Your task to perform on an android device: toggle location history Image 0: 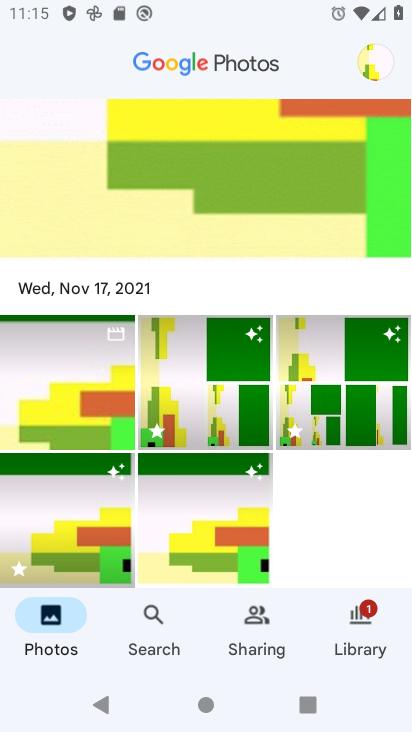
Step 0: press back button
Your task to perform on an android device: toggle location history Image 1: 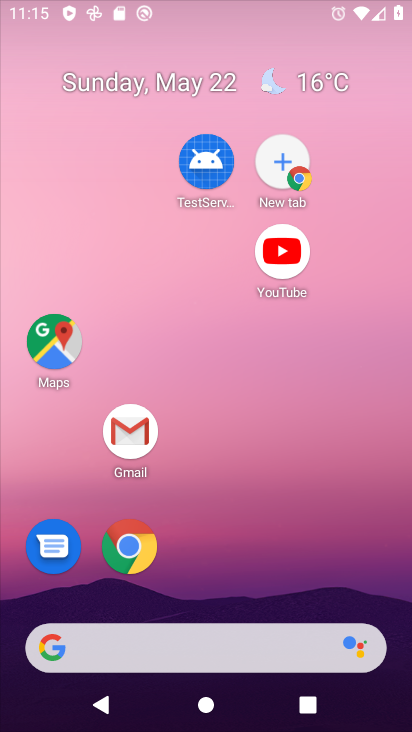
Step 1: press home button
Your task to perform on an android device: toggle location history Image 2: 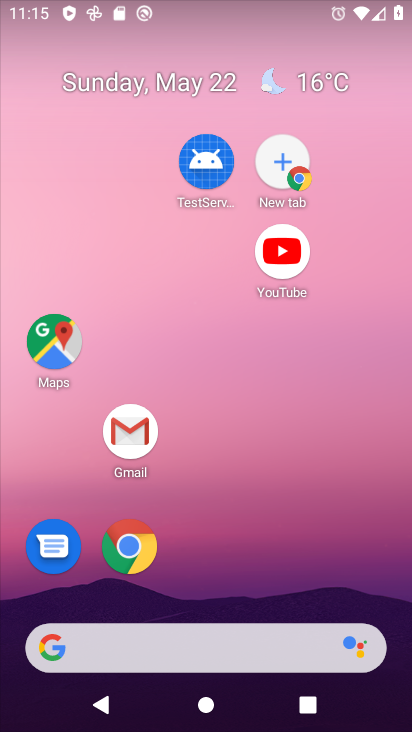
Step 2: drag from (181, 158) to (174, 107)
Your task to perform on an android device: toggle location history Image 3: 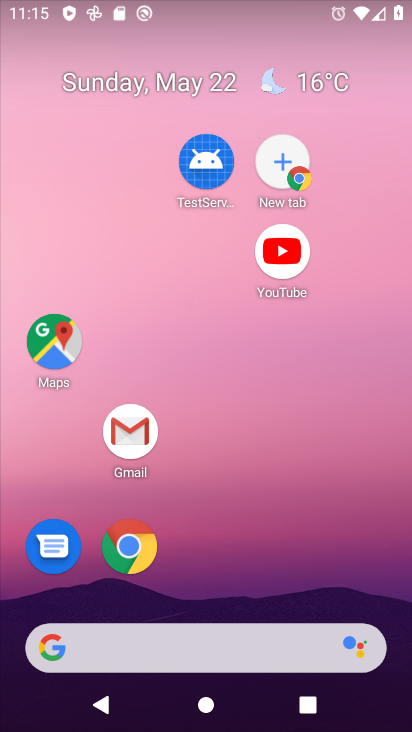
Step 3: drag from (259, 696) to (179, 148)
Your task to perform on an android device: toggle location history Image 4: 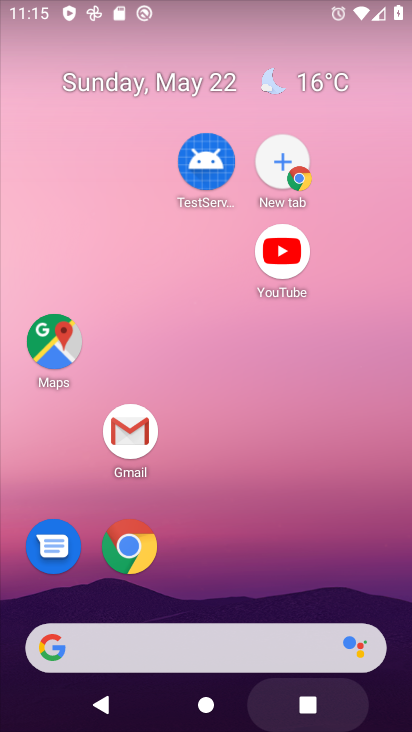
Step 4: drag from (207, 565) to (257, 145)
Your task to perform on an android device: toggle location history Image 5: 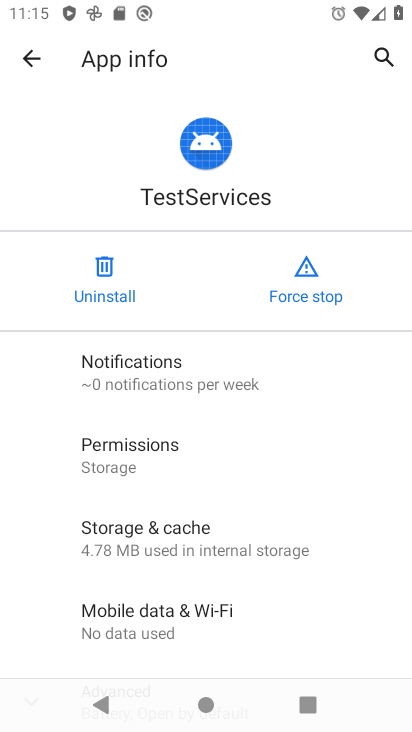
Step 5: click (31, 53)
Your task to perform on an android device: toggle location history Image 6: 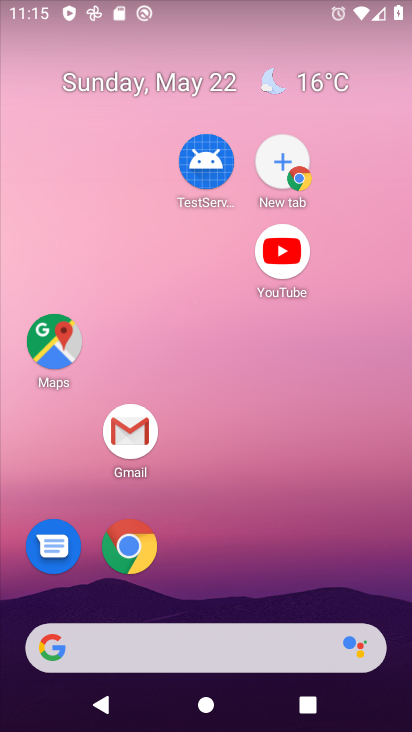
Step 6: drag from (251, 703) to (184, 157)
Your task to perform on an android device: toggle location history Image 7: 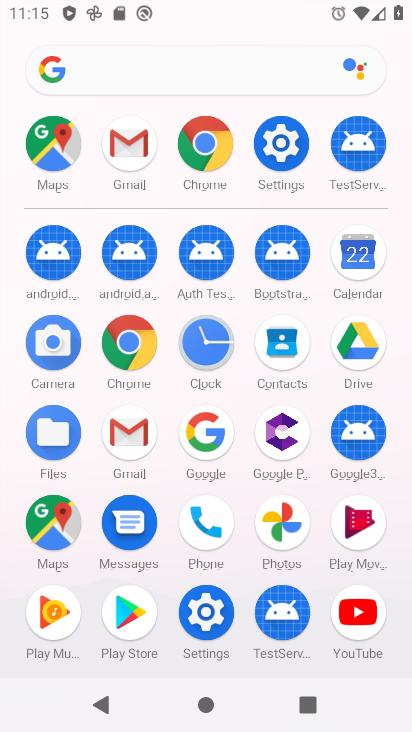
Step 7: click (274, 143)
Your task to perform on an android device: toggle location history Image 8: 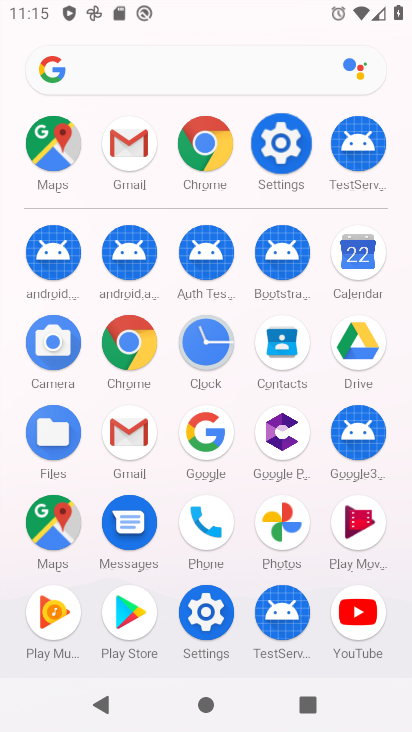
Step 8: click (274, 142)
Your task to perform on an android device: toggle location history Image 9: 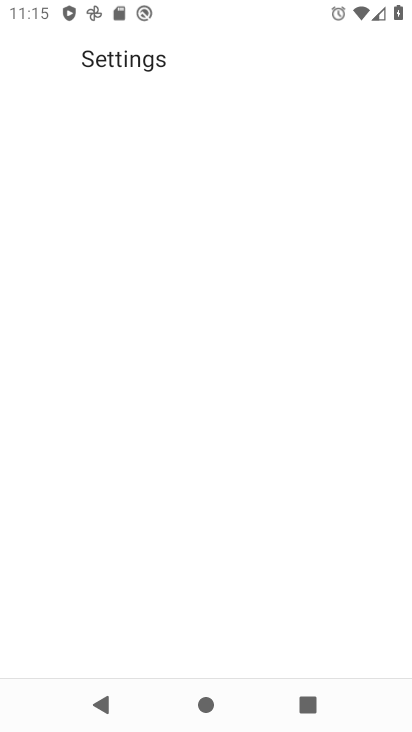
Step 9: click (274, 142)
Your task to perform on an android device: toggle location history Image 10: 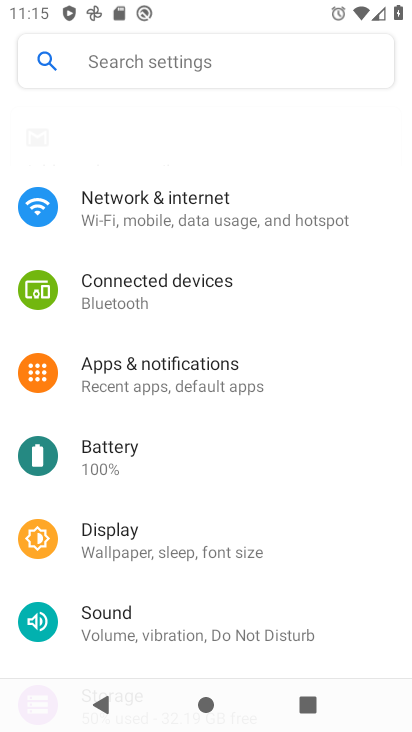
Step 10: click (275, 141)
Your task to perform on an android device: toggle location history Image 11: 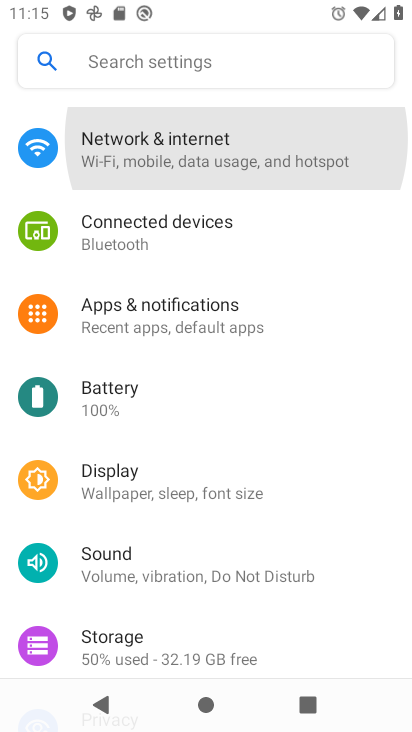
Step 11: click (275, 141)
Your task to perform on an android device: toggle location history Image 12: 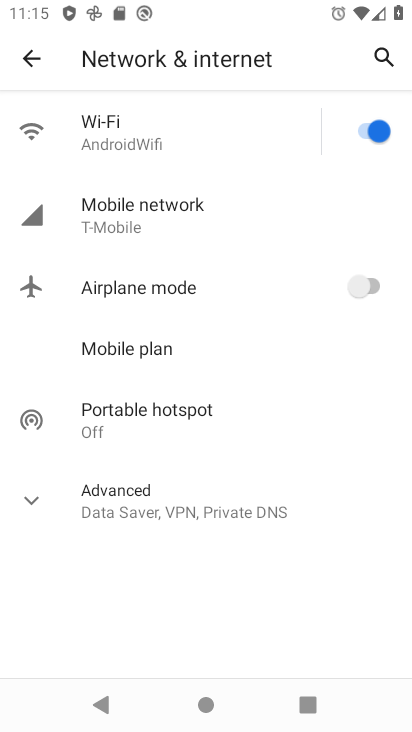
Step 12: click (22, 60)
Your task to perform on an android device: toggle location history Image 13: 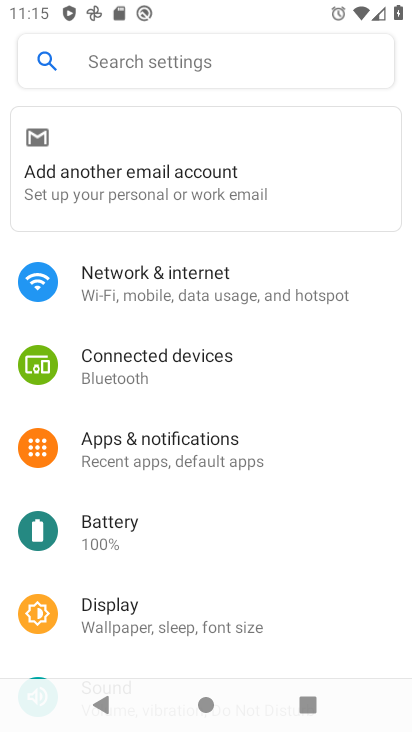
Step 13: drag from (145, 530) to (115, 208)
Your task to perform on an android device: toggle location history Image 14: 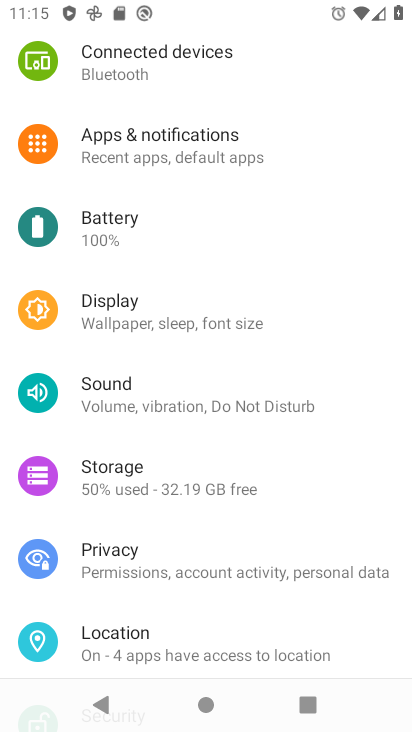
Step 14: drag from (115, 387) to (114, 161)
Your task to perform on an android device: toggle location history Image 15: 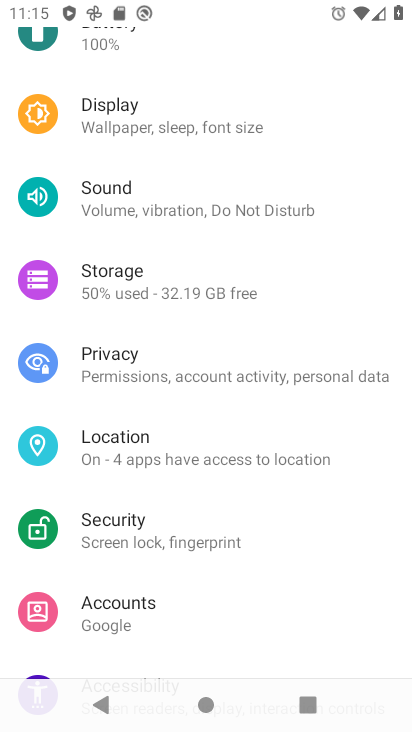
Step 15: drag from (120, 219) to (186, 481)
Your task to perform on an android device: toggle location history Image 16: 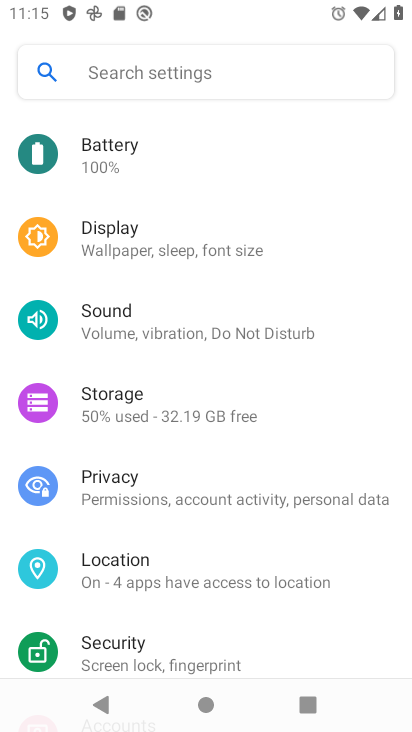
Step 16: drag from (184, 307) to (162, 636)
Your task to perform on an android device: toggle location history Image 17: 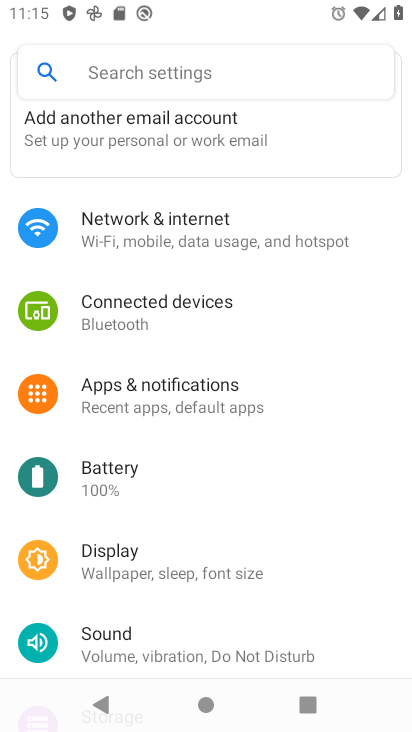
Step 17: drag from (154, 278) to (171, 445)
Your task to perform on an android device: toggle location history Image 18: 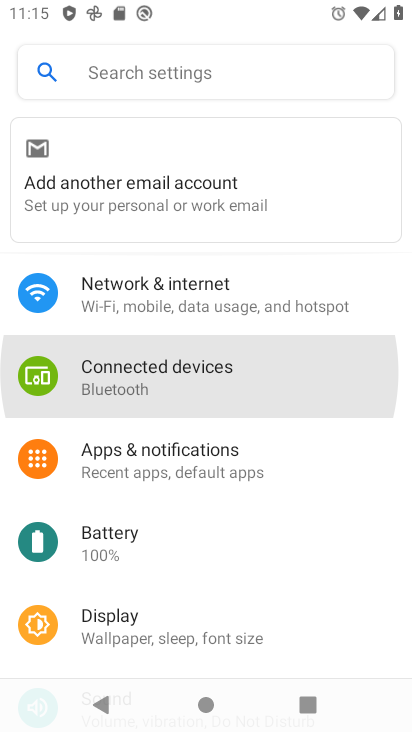
Step 18: drag from (144, 322) to (180, 569)
Your task to perform on an android device: toggle location history Image 19: 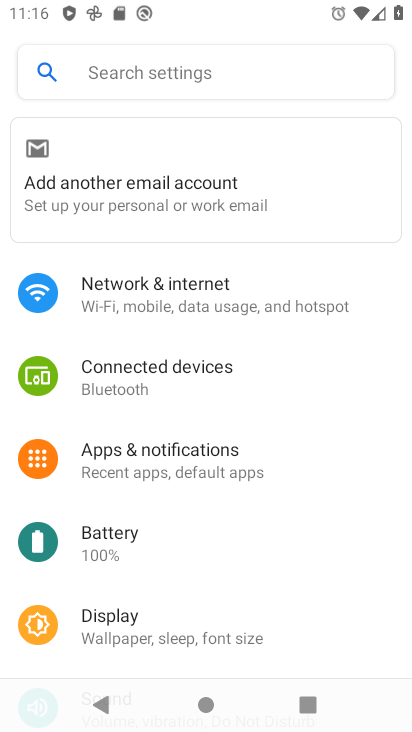
Step 19: drag from (188, 519) to (165, 281)
Your task to perform on an android device: toggle location history Image 20: 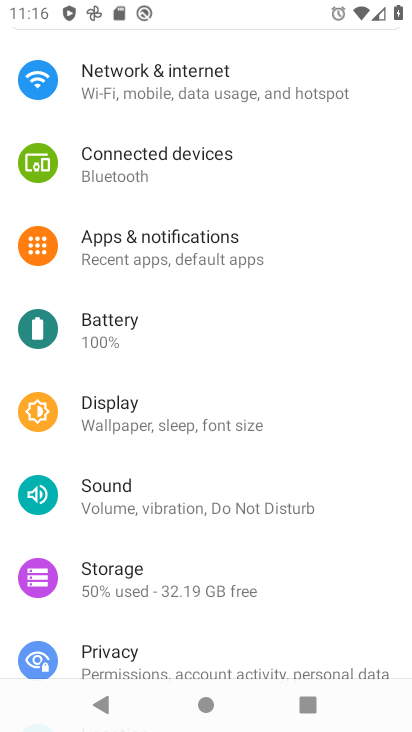
Step 20: drag from (124, 489) to (93, 190)
Your task to perform on an android device: toggle location history Image 21: 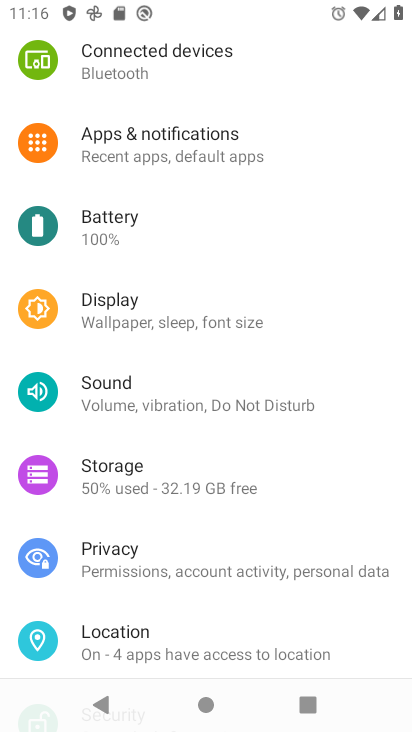
Step 21: drag from (187, 537) to (186, 226)
Your task to perform on an android device: toggle location history Image 22: 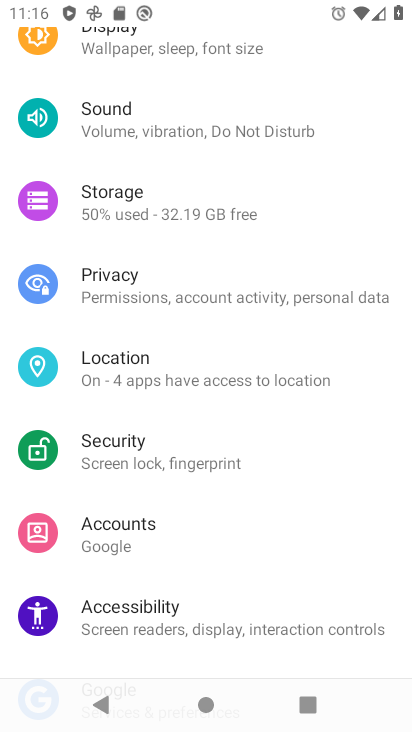
Step 22: click (117, 354)
Your task to perform on an android device: toggle location history Image 23: 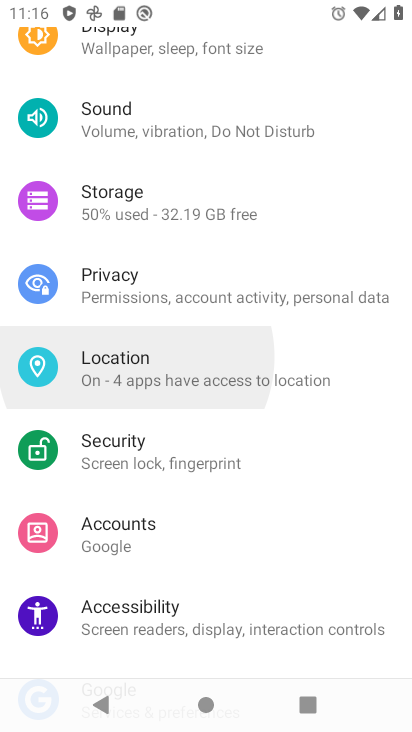
Step 23: click (118, 355)
Your task to perform on an android device: toggle location history Image 24: 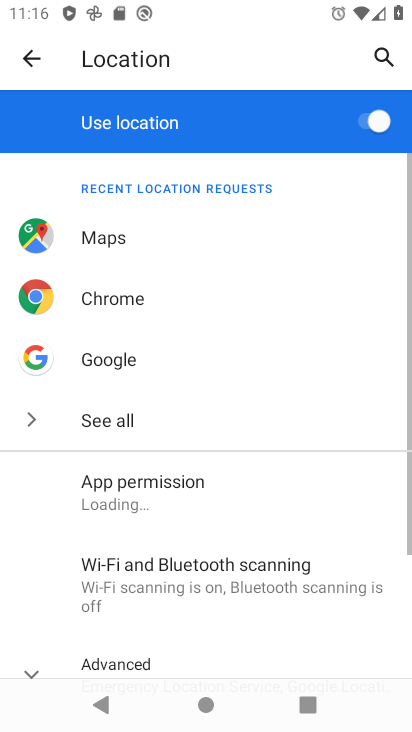
Step 24: drag from (127, 532) to (151, 166)
Your task to perform on an android device: toggle location history Image 25: 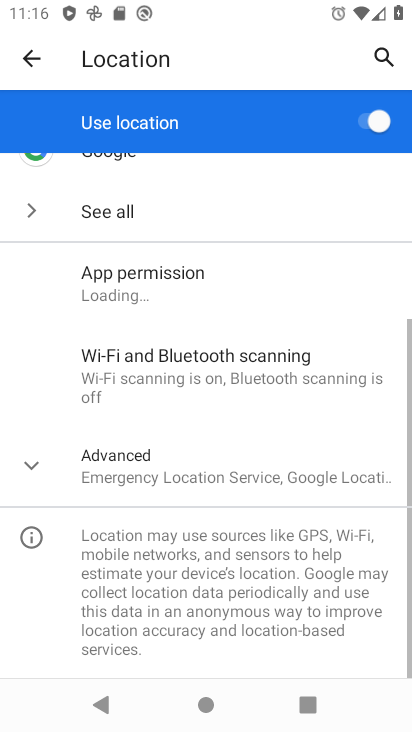
Step 25: drag from (205, 530) to (210, 231)
Your task to perform on an android device: toggle location history Image 26: 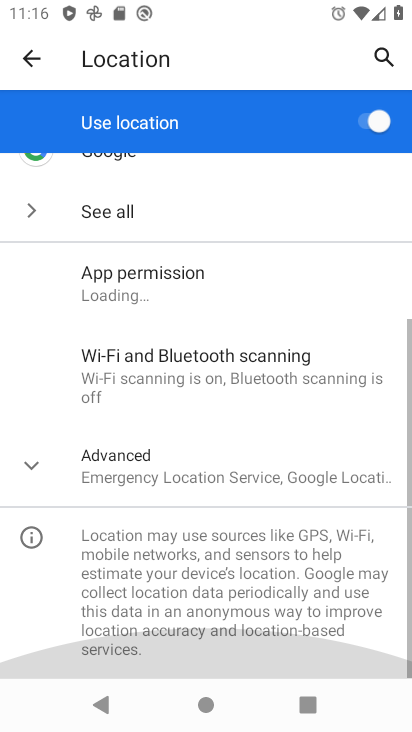
Step 26: drag from (180, 606) to (177, 310)
Your task to perform on an android device: toggle location history Image 27: 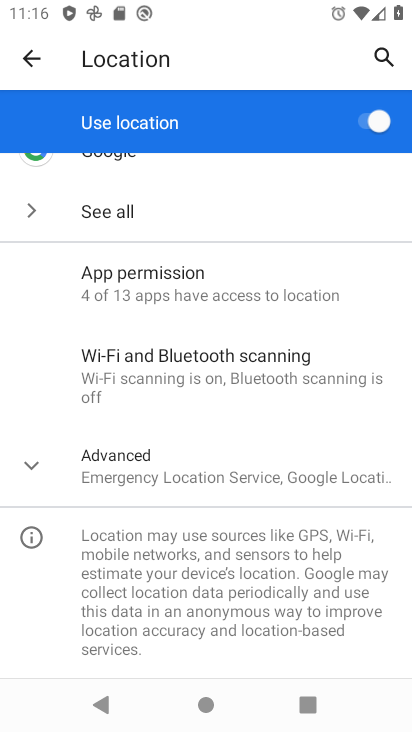
Step 27: click (173, 468)
Your task to perform on an android device: toggle location history Image 28: 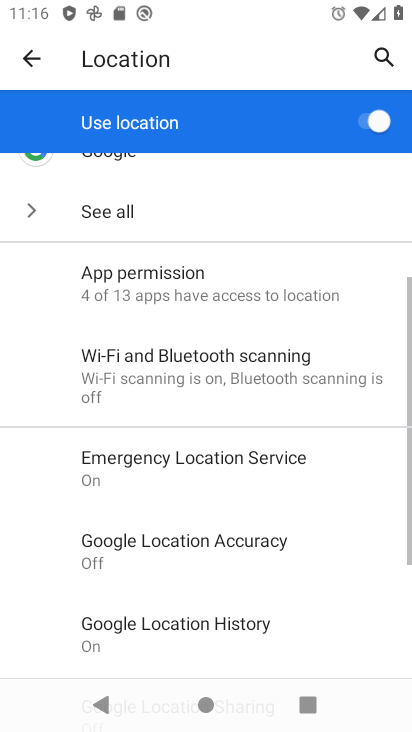
Step 28: click (152, 337)
Your task to perform on an android device: toggle location history Image 29: 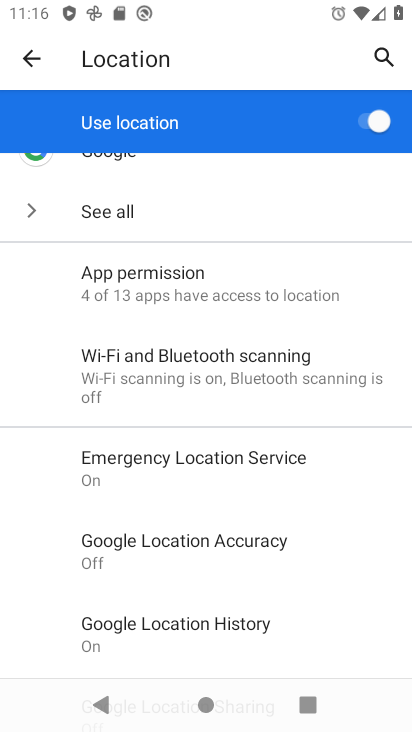
Step 29: drag from (190, 459) to (181, 218)
Your task to perform on an android device: toggle location history Image 30: 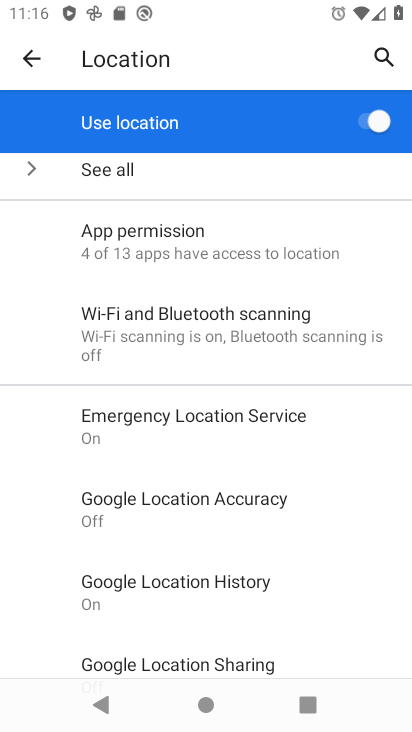
Step 30: click (163, 581)
Your task to perform on an android device: toggle location history Image 31: 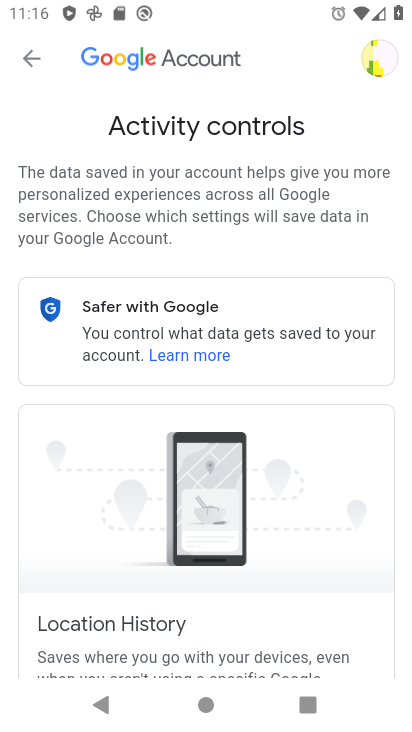
Step 31: task complete